Your task to perform on an android device: turn smart compose on in the gmail app Image 0: 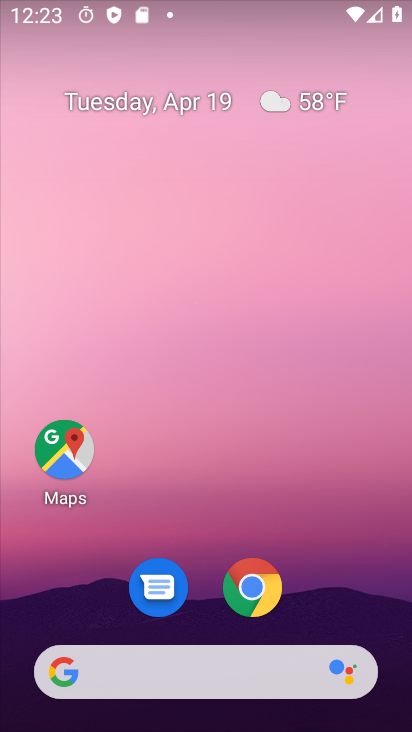
Step 0: drag from (321, 359) to (311, 102)
Your task to perform on an android device: turn smart compose on in the gmail app Image 1: 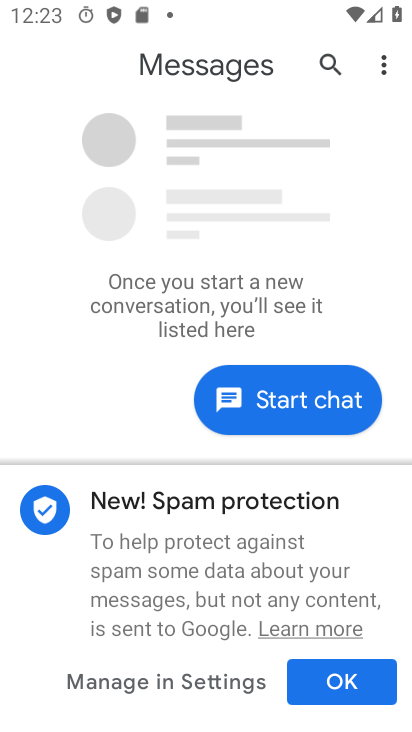
Step 1: press home button
Your task to perform on an android device: turn smart compose on in the gmail app Image 2: 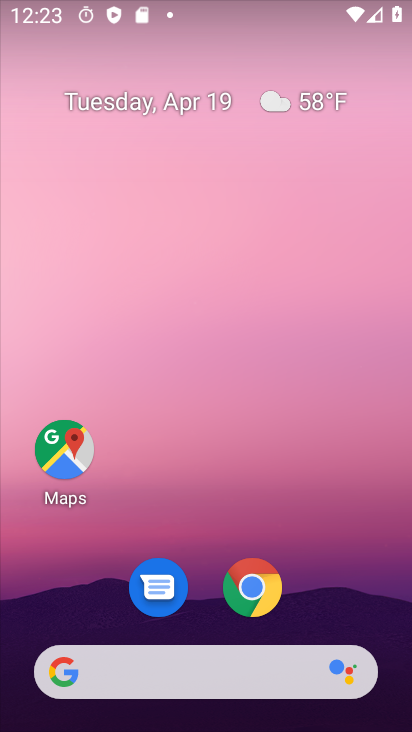
Step 2: drag from (355, 535) to (348, 122)
Your task to perform on an android device: turn smart compose on in the gmail app Image 3: 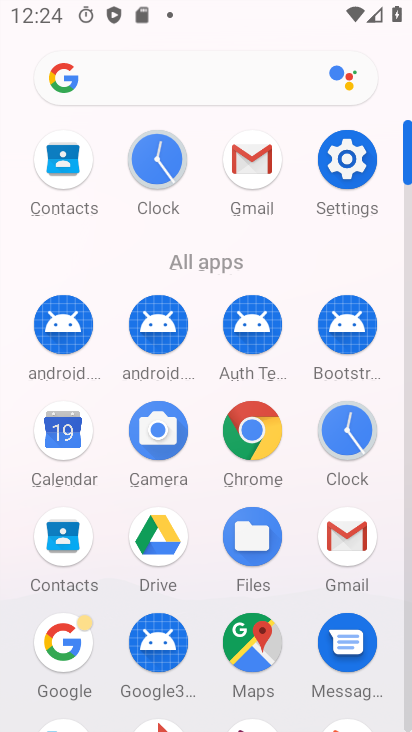
Step 3: click (350, 544)
Your task to perform on an android device: turn smart compose on in the gmail app Image 4: 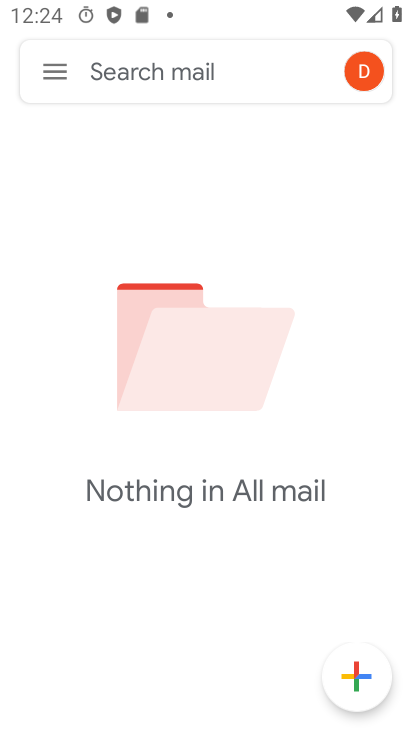
Step 4: click (65, 63)
Your task to perform on an android device: turn smart compose on in the gmail app Image 5: 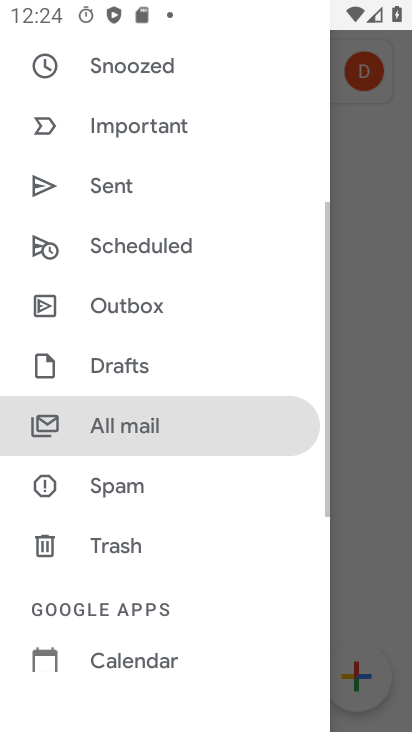
Step 5: drag from (237, 622) to (249, 302)
Your task to perform on an android device: turn smart compose on in the gmail app Image 6: 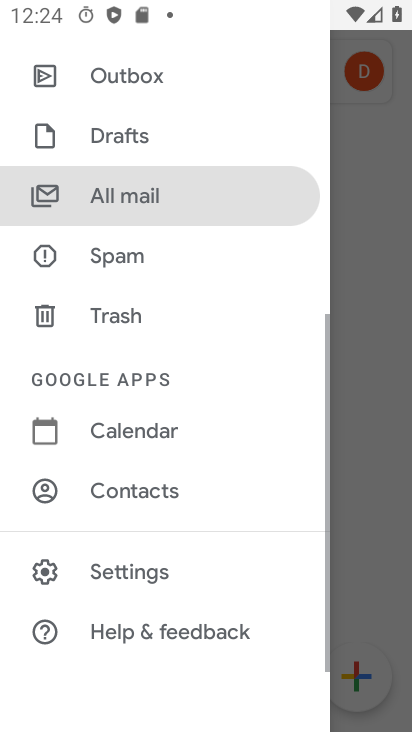
Step 6: click (160, 576)
Your task to perform on an android device: turn smart compose on in the gmail app Image 7: 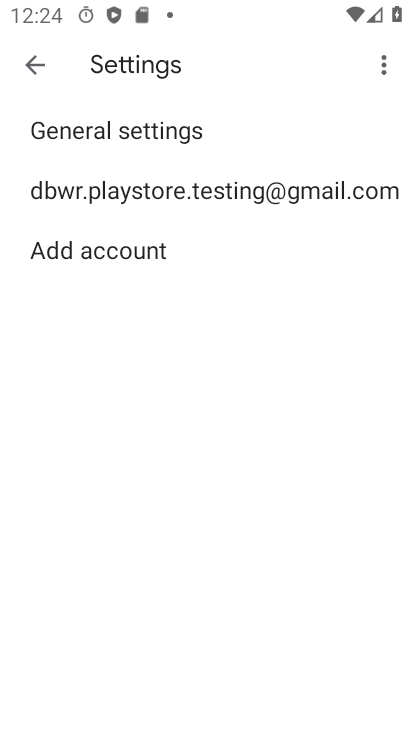
Step 7: click (220, 198)
Your task to perform on an android device: turn smart compose on in the gmail app Image 8: 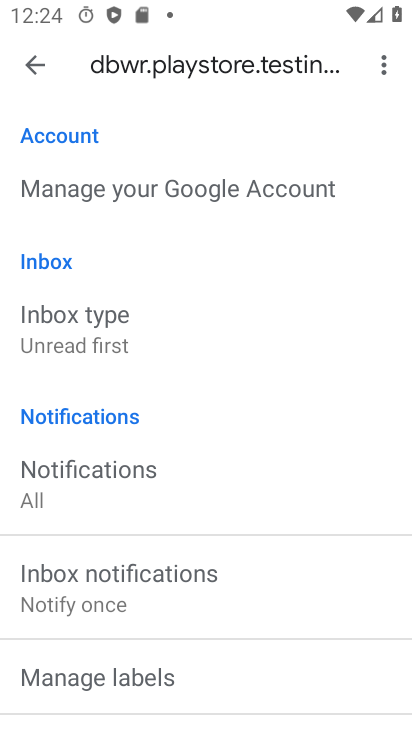
Step 8: task complete